Your task to perform on an android device: search for starred emails in the gmail app Image 0: 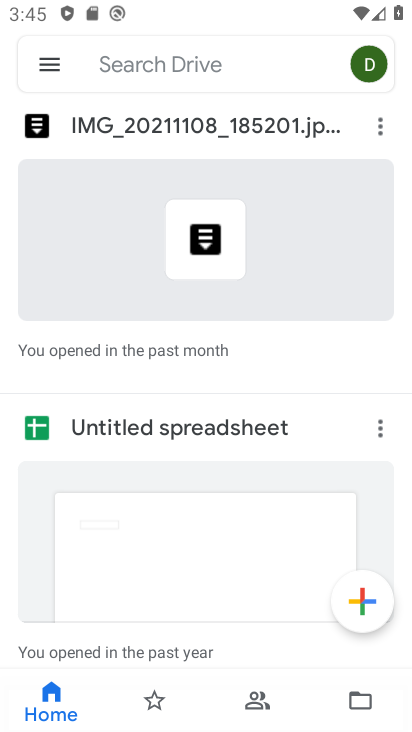
Step 0: press home button
Your task to perform on an android device: search for starred emails in the gmail app Image 1: 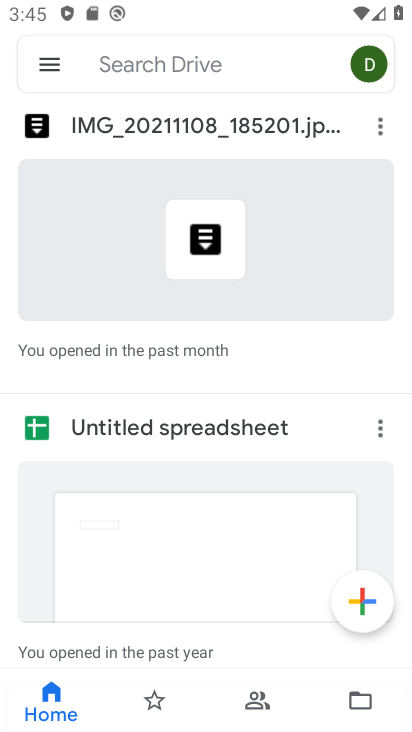
Step 1: press home button
Your task to perform on an android device: search for starred emails in the gmail app Image 2: 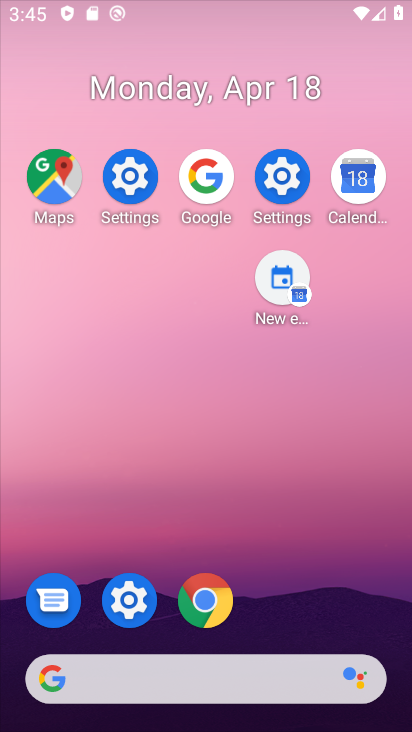
Step 2: press home button
Your task to perform on an android device: search for starred emails in the gmail app Image 3: 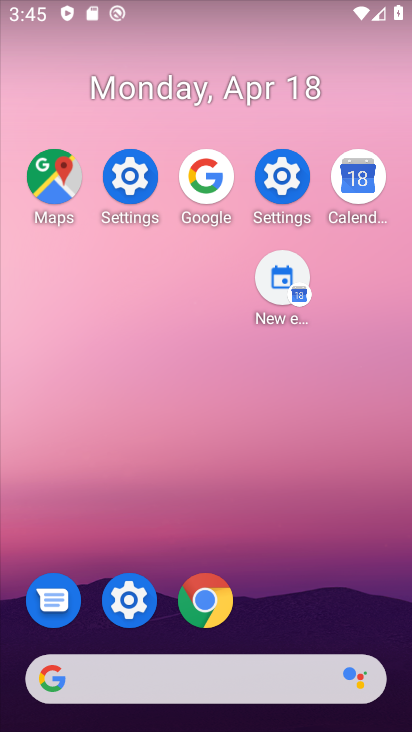
Step 3: drag from (301, 483) to (217, 181)
Your task to perform on an android device: search for starred emails in the gmail app Image 4: 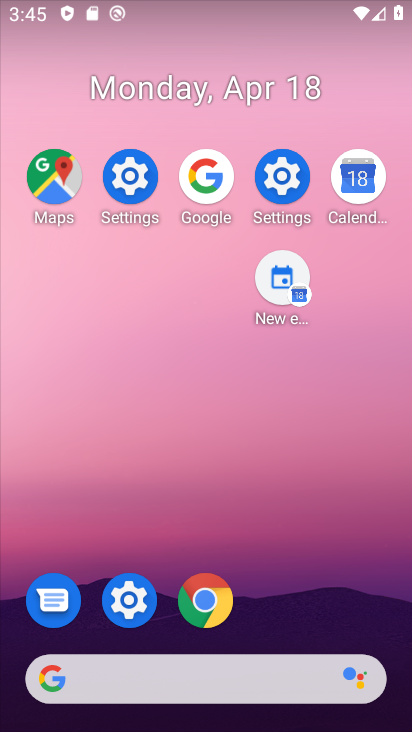
Step 4: drag from (258, 663) to (145, 170)
Your task to perform on an android device: search for starred emails in the gmail app Image 5: 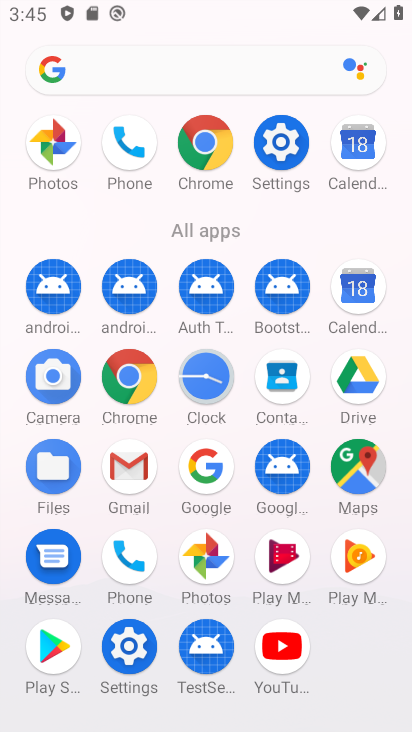
Step 5: click (142, 374)
Your task to perform on an android device: search for starred emails in the gmail app Image 6: 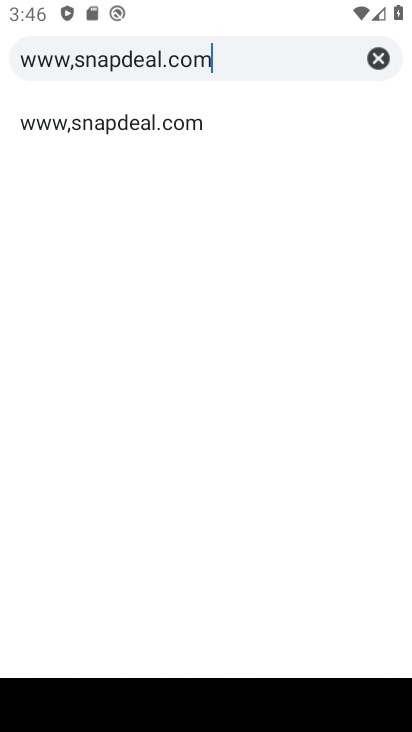
Step 6: drag from (378, 50) to (308, 697)
Your task to perform on an android device: search for starred emails in the gmail app Image 7: 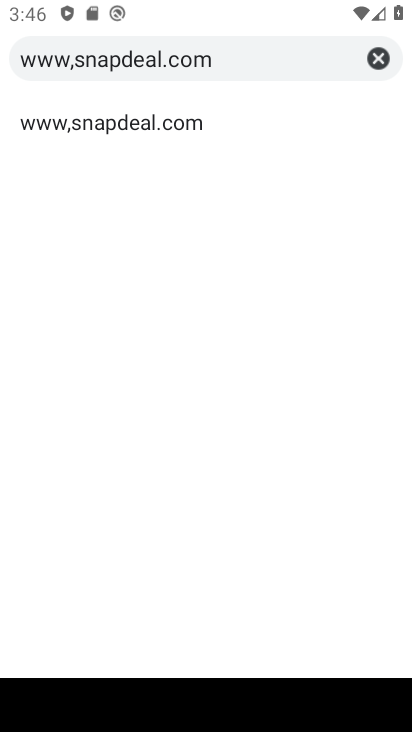
Step 7: drag from (93, 693) to (44, 321)
Your task to perform on an android device: search for starred emails in the gmail app Image 8: 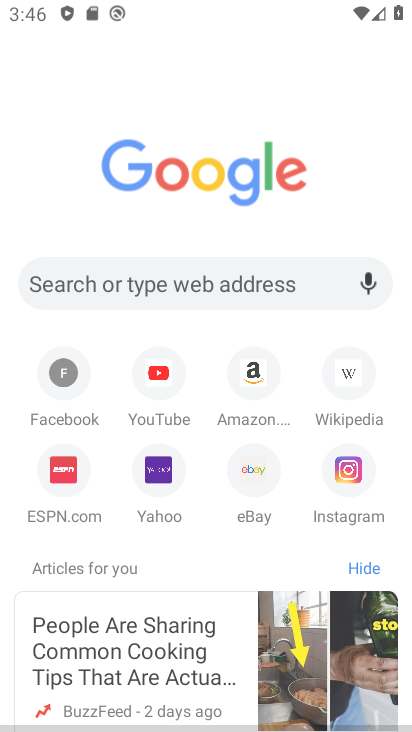
Step 8: press home button
Your task to perform on an android device: search for starred emails in the gmail app Image 9: 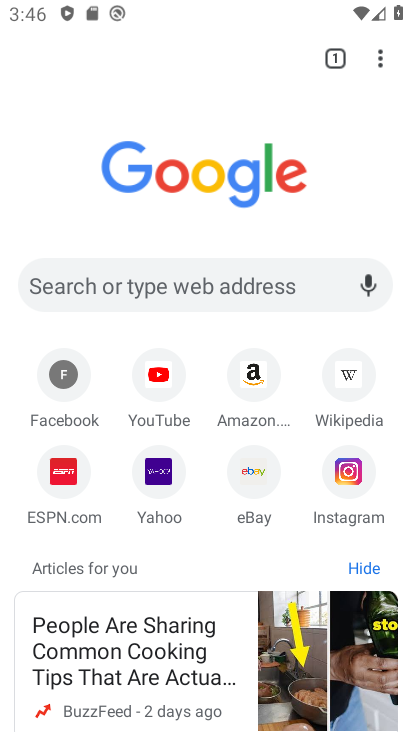
Step 9: press home button
Your task to perform on an android device: search for starred emails in the gmail app Image 10: 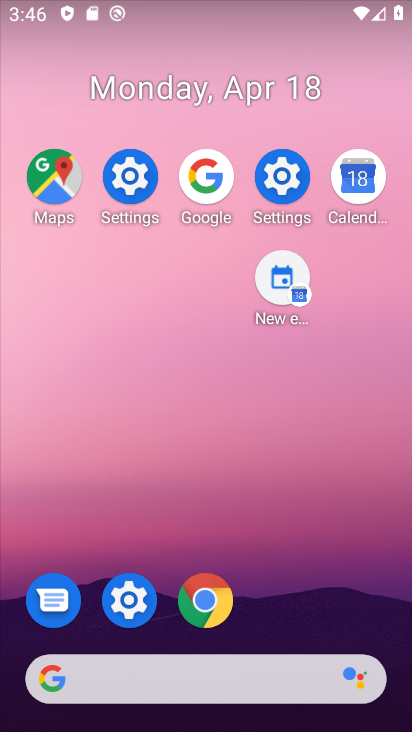
Step 10: drag from (338, 683) to (162, 53)
Your task to perform on an android device: search for starred emails in the gmail app Image 11: 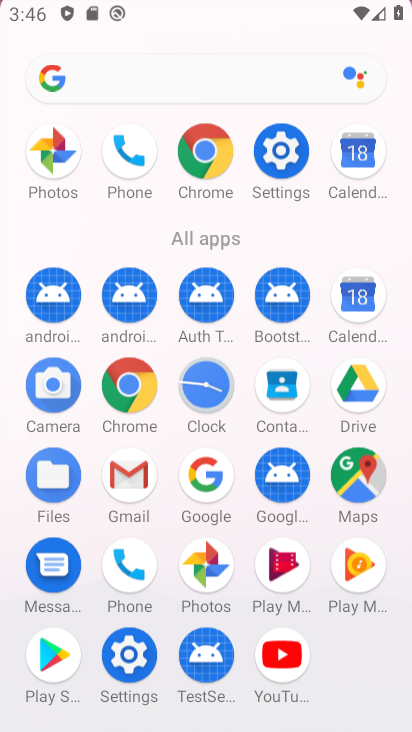
Step 11: drag from (236, 215) to (231, 101)
Your task to perform on an android device: search for starred emails in the gmail app Image 12: 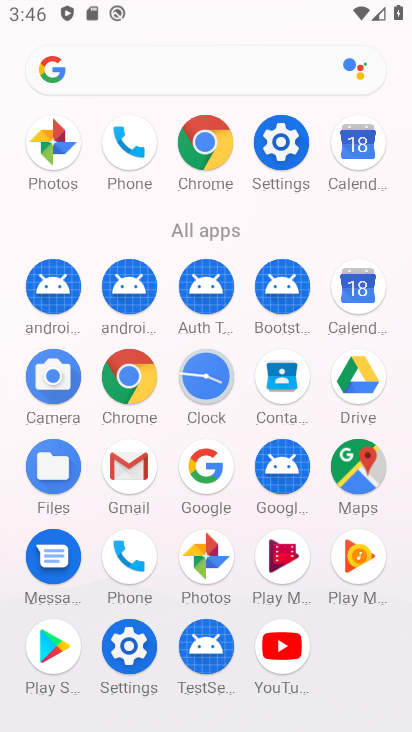
Step 12: click (126, 459)
Your task to perform on an android device: search for starred emails in the gmail app Image 13: 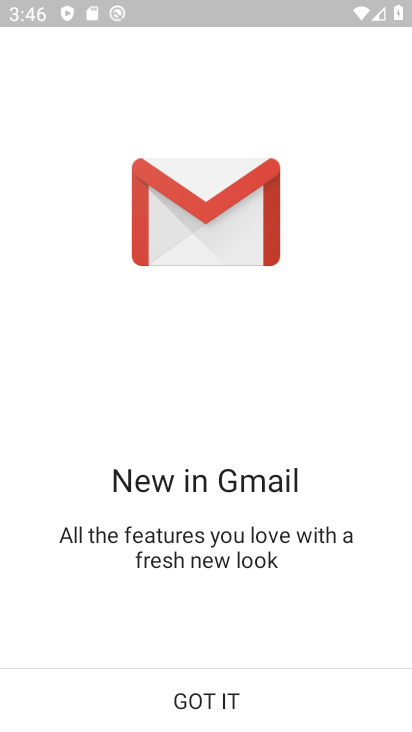
Step 13: click (204, 697)
Your task to perform on an android device: search for starred emails in the gmail app Image 14: 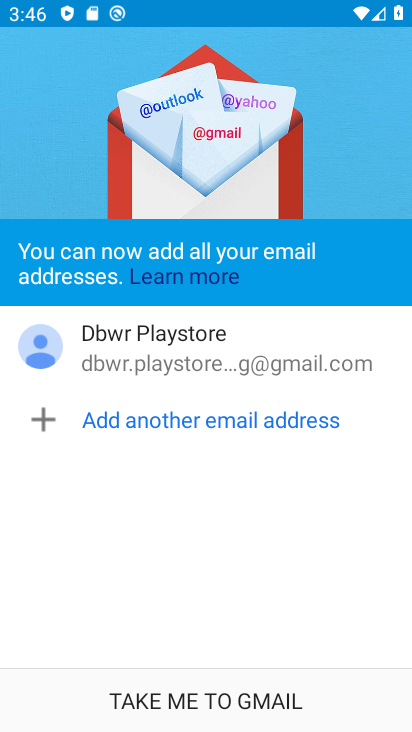
Step 14: click (199, 689)
Your task to perform on an android device: search for starred emails in the gmail app Image 15: 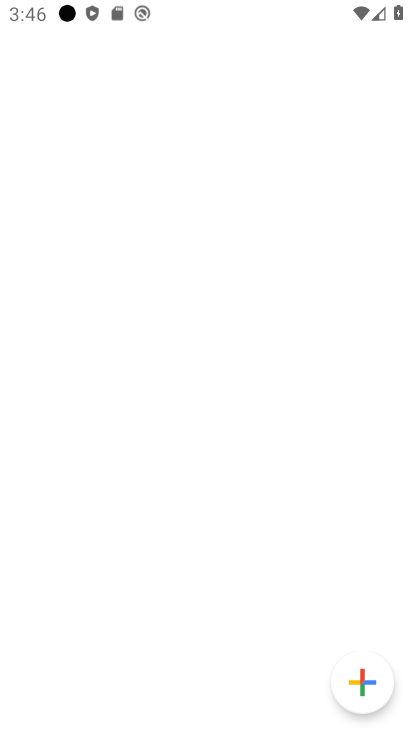
Step 15: click (223, 702)
Your task to perform on an android device: search for starred emails in the gmail app Image 16: 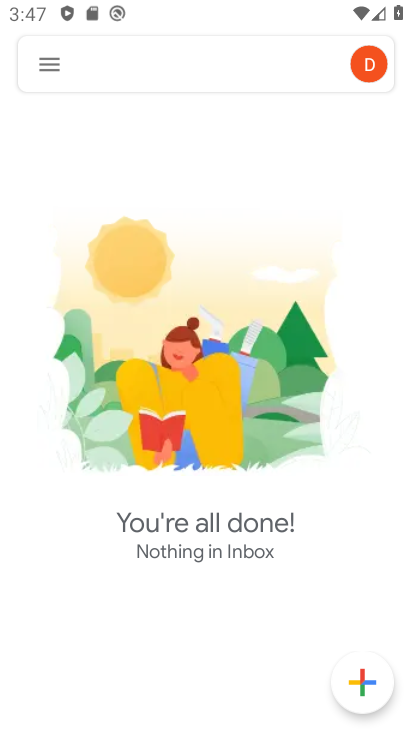
Step 16: click (52, 62)
Your task to perform on an android device: search for starred emails in the gmail app Image 17: 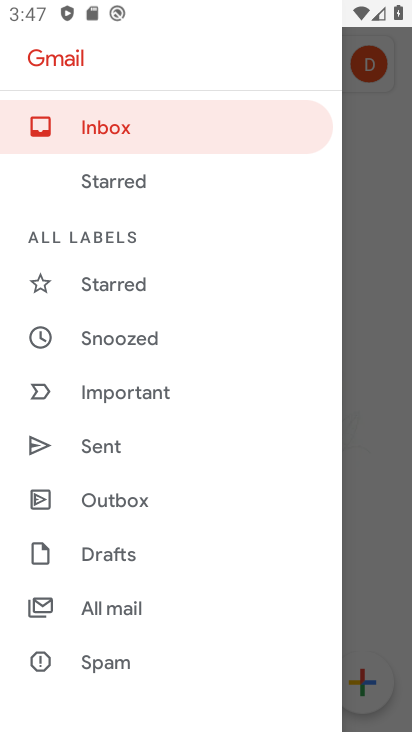
Step 17: click (119, 300)
Your task to perform on an android device: search for starred emails in the gmail app Image 18: 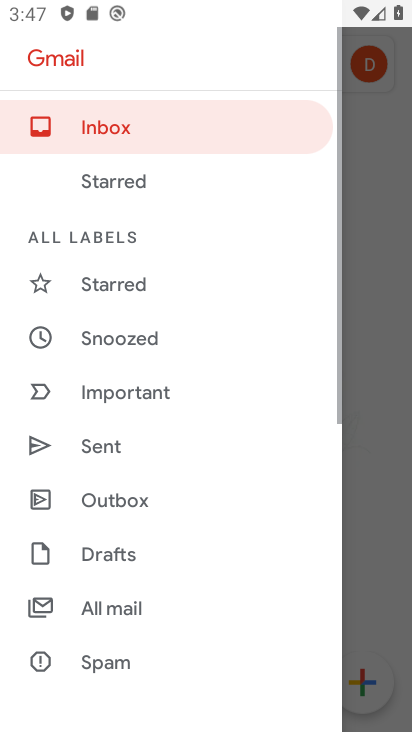
Step 18: click (118, 287)
Your task to perform on an android device: search for starred emails in the gmail app Image 19: 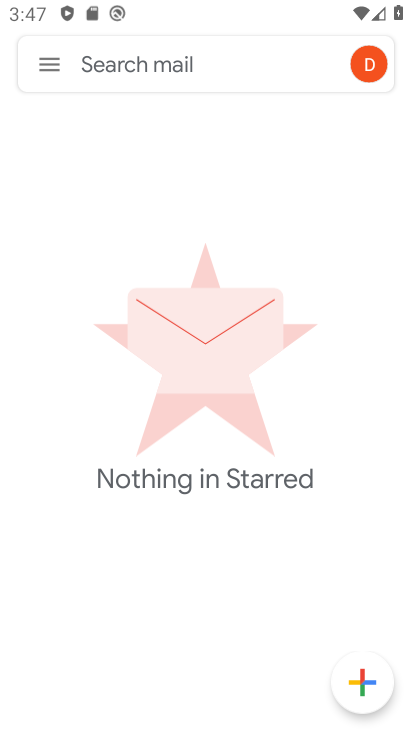
Step 19: task complete